Your task to perform on an android device: Go to wifi settings Image 0: 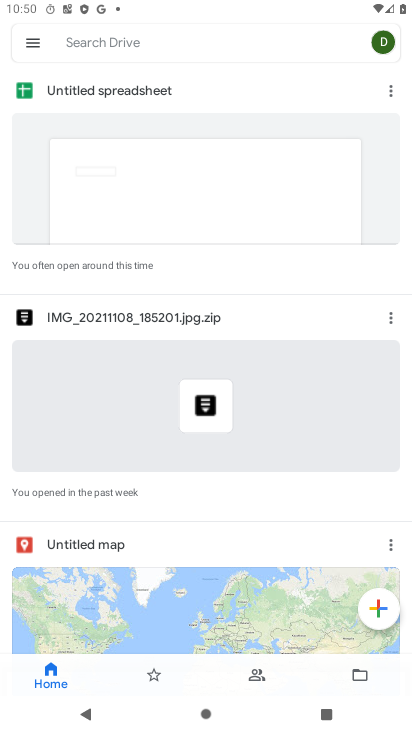
Step 0: press home button
Your task to perform on an android device: Go to wifi settings Image 1: 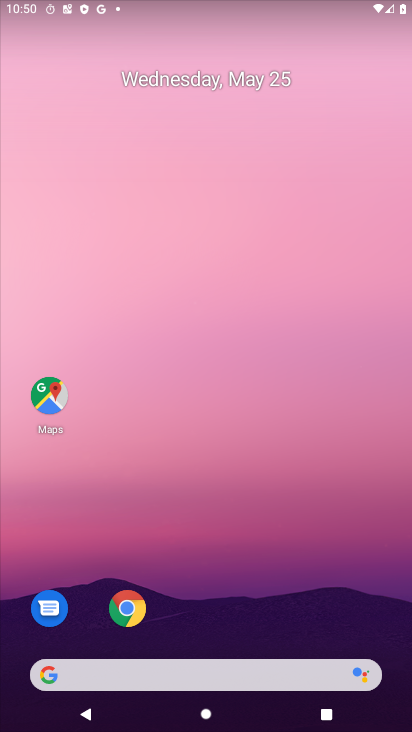
Step 1: drag from (226, 645) to (240, 65)
Your task to perform on an android device: Go to wifi settings Image 2: 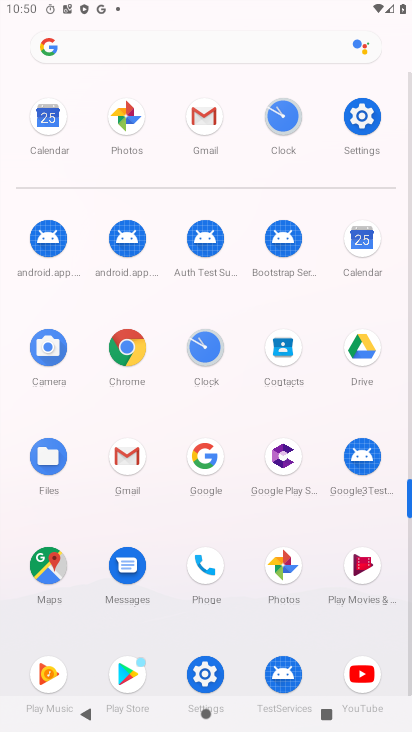
Step 2: click (362, 125)
Your task to perform on an android device: Go to wifi settings Image 3: 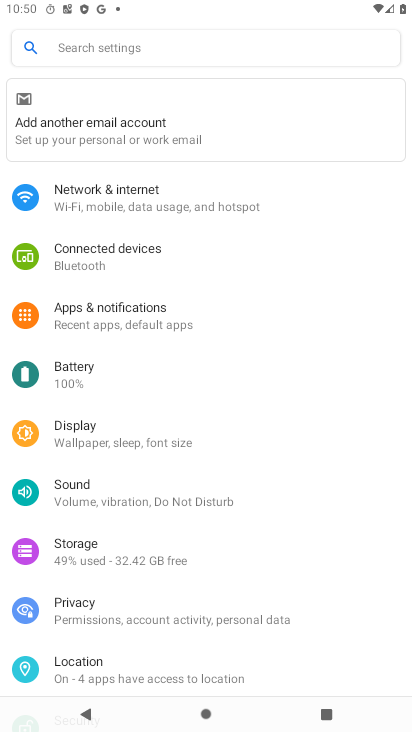
Step 3: click (121, 205)
Your task to perform on an android device: Go to wifi settings Image 4: 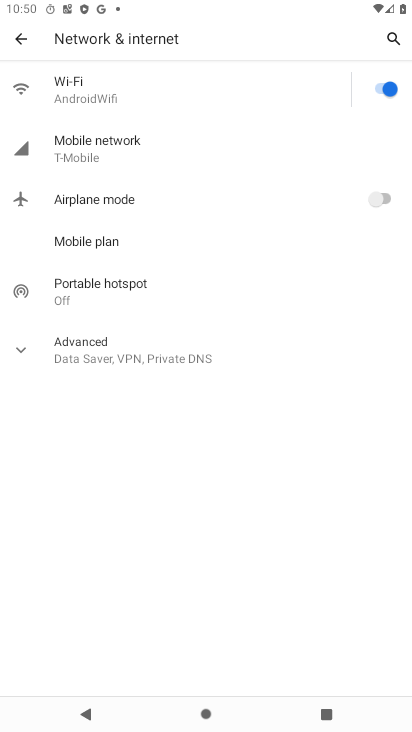
Step 4: click (58, 102)
Your task to perform on an android device: Go to wifi settings Image 5: 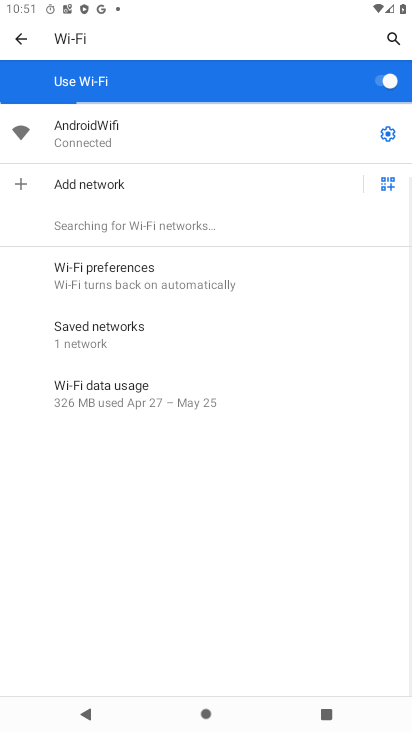
Step 5: task complete